Your task to perform on an android device: turn on the 12-hour format for clock Image 0: 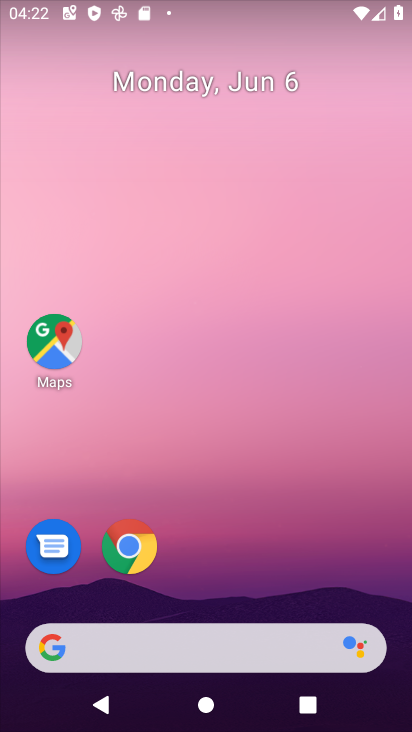
Step 0: drag from (272, 604) to (242, 159)
Your task to perform on an android device: turn on the 12-hour format for clock Image 1: 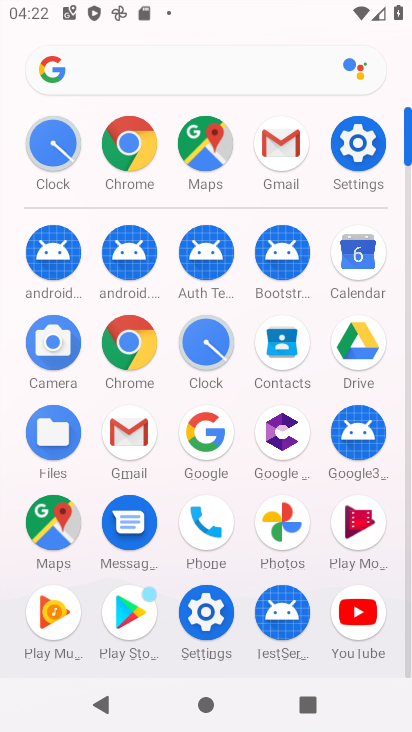
Step 1: click (199, 342)
Your task to perform on an android device: turn on the 12-hour format for clock Image 2: 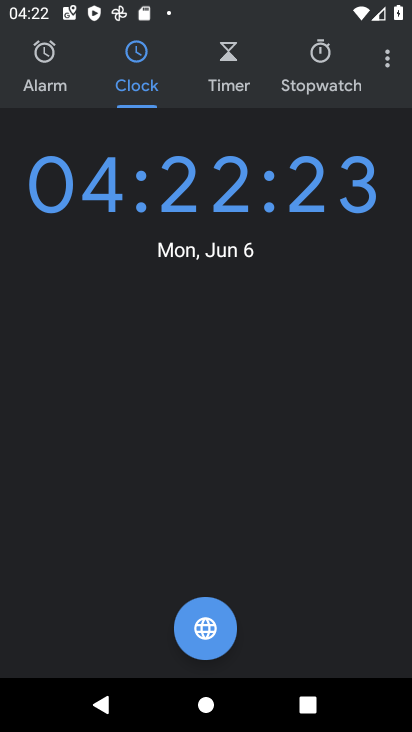
Step 2: click (381, 69)
Your task to perform on an android device: turn on the 12-hour format for clock Image 3: 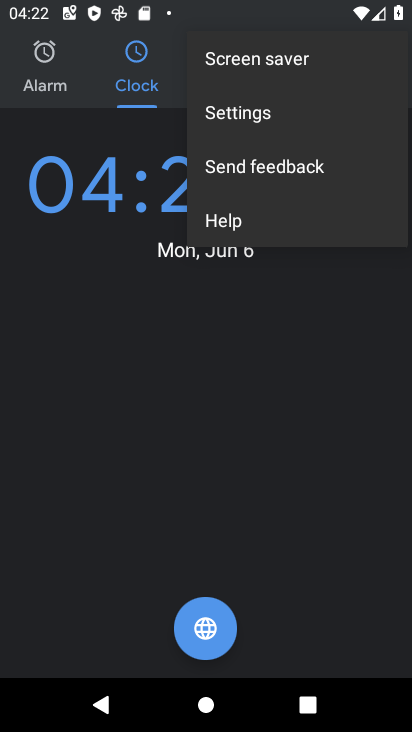
Step 3: click (254, 113)
Your task to perform on an android device: turn on the 12-hour format for clock Image 4: 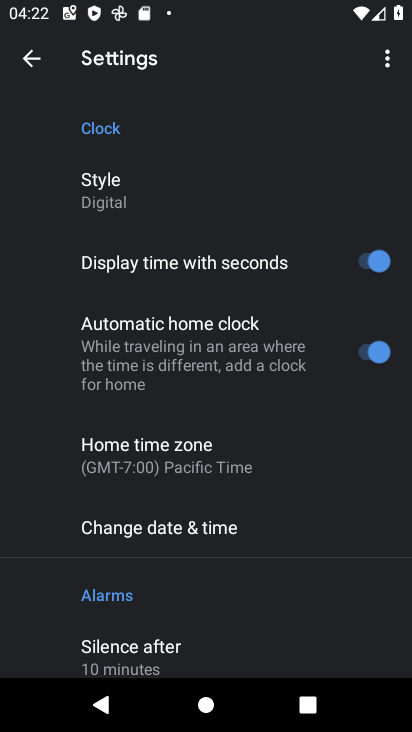
Step 4: task complete